Your task to perform on an android device: turn on notifications settings in the gmail app Image 0: 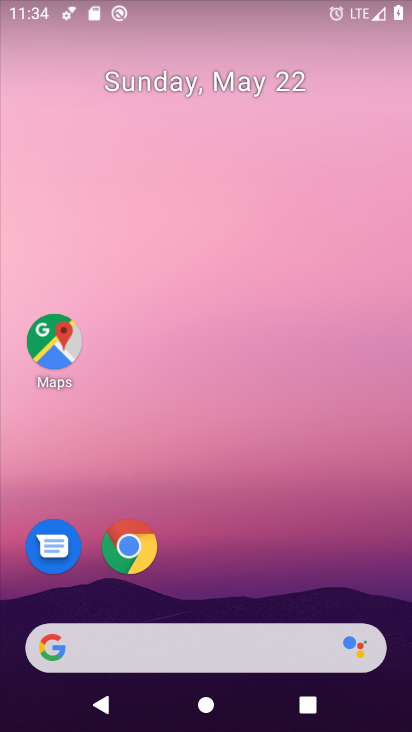
Step 0: click (258, 261)
Your task to perform on an android device: turn on notifications settings in the gmail app Image 1: 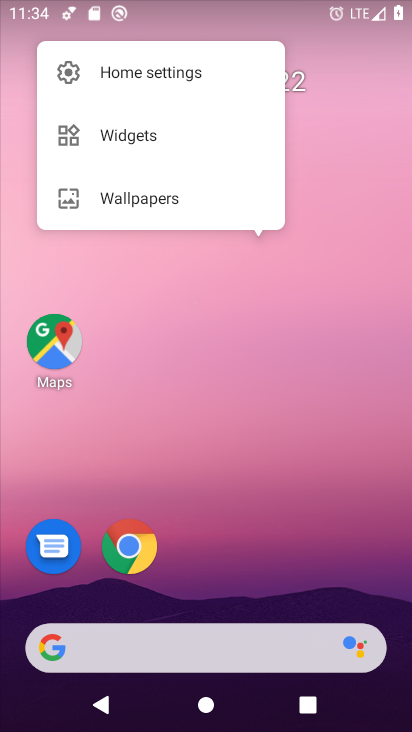
Step 1: click (293, 281)
Your task to perform on an android device: turn on notifications settings in the gmail app Image 2: 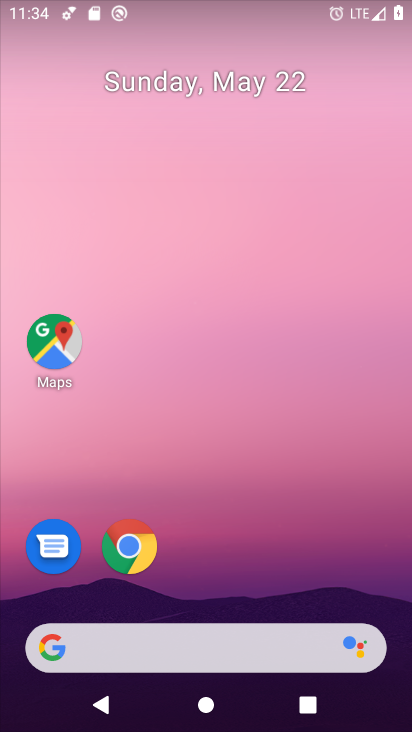
Step 2: drag from (242, 644) to (332, 253)
Your task to perform on an android device: turn on notifications settings in the gmail app Image 3: 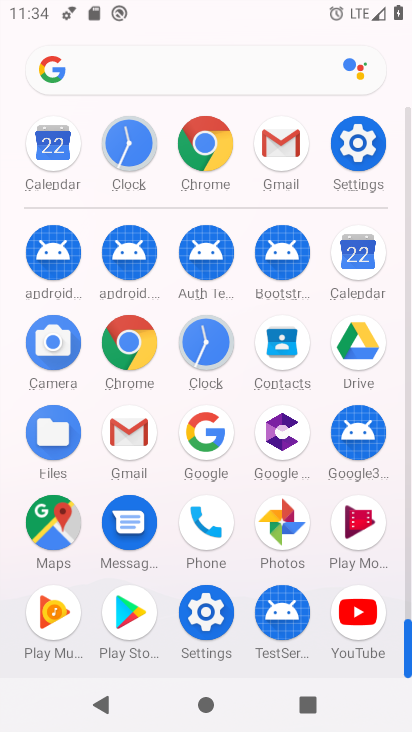
Step 3: click (130, 447)
Your task to perform on an android device: turn on notifications settings in the gmail app Image 4: 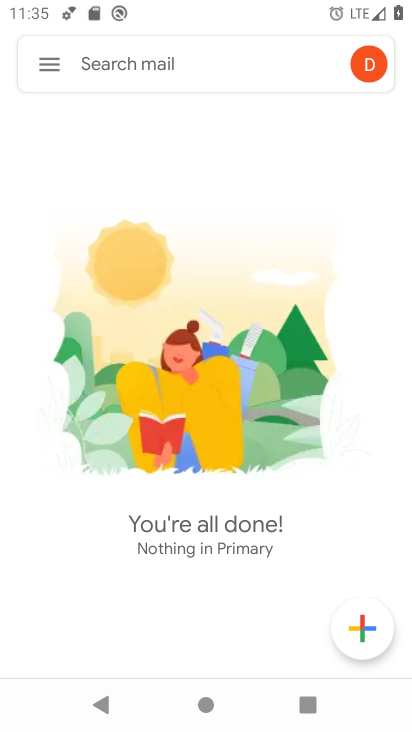
Step 4: click (49, 68)
Your task to perform on an android device: turn on notifications settings in the gmail app Image 5: 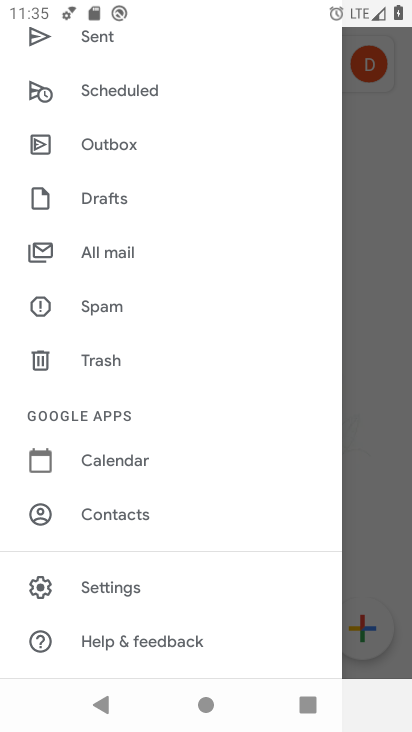
Step 5: click (140, 591)
Your task to perform on an android device: turn on notifications settings in the gmail app Image 6: 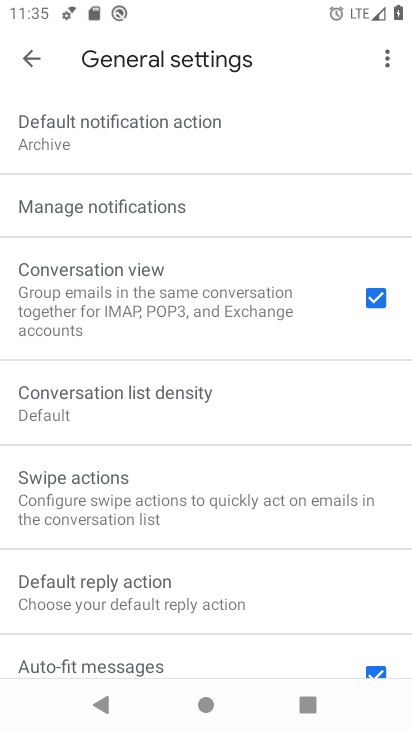
Step 6: click (210, 203)
Your task to perform on an android device: turn on notifications settings in the gmail app Image 7: 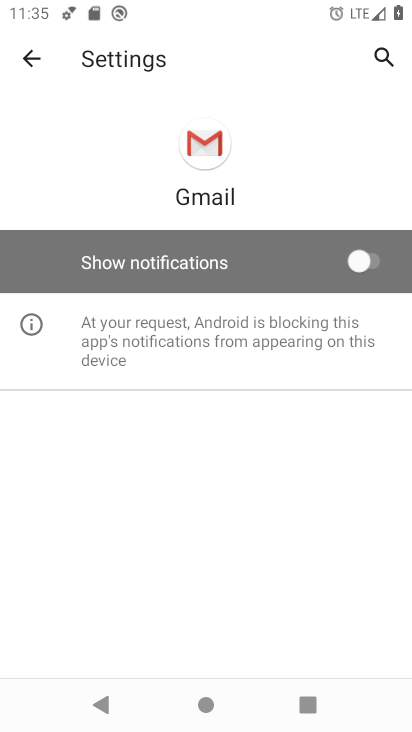
Step 7: click (225, 259)
Your task to perform on an android device: turn on notifications settings in the gmail app Image 8: 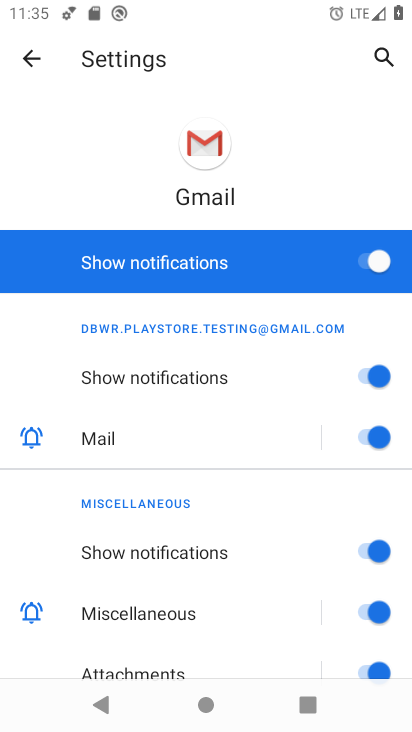
Step 8: task complete